Your task to perform on an android device: Go to Android settings Image 0: 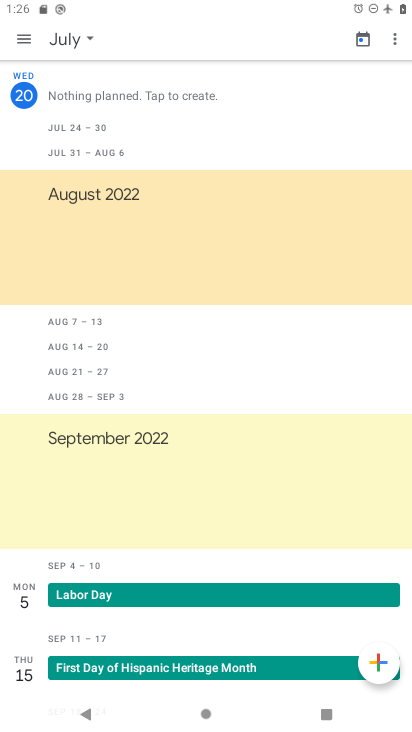
Step 0: press home button
Your task to perform on an android device: Go to Android settings Image 1: 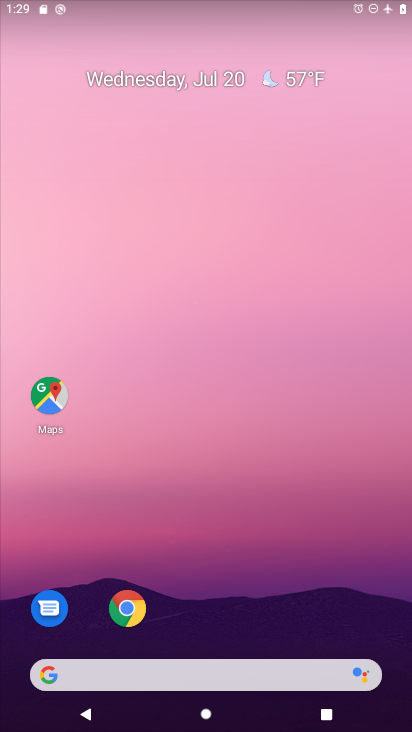
Step 1: drag from (217, 469) to (273, 203)
Your task to perform on an android device: Go to Android settings Image 2: 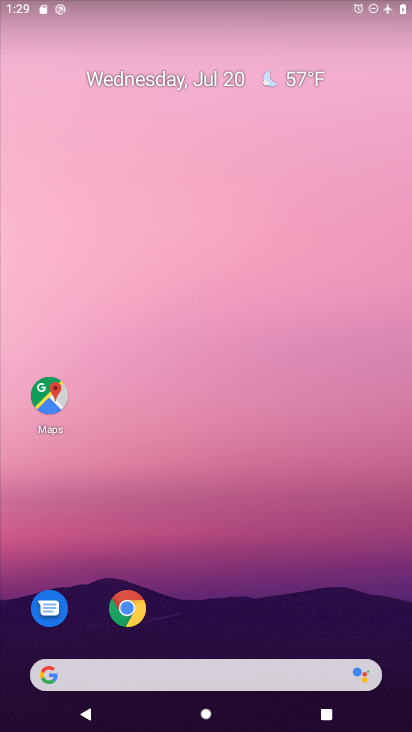
Step 2: drag from (138, 656) to (265, 52)
Your task to perform on an android device: Go to Android settings Image 3: 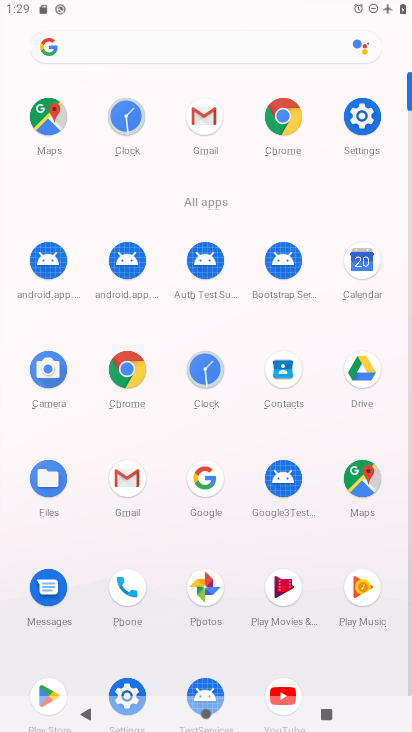
Step 3: click (364, 124)
Your task to perform on an android device: Go to Android settings Image 4: 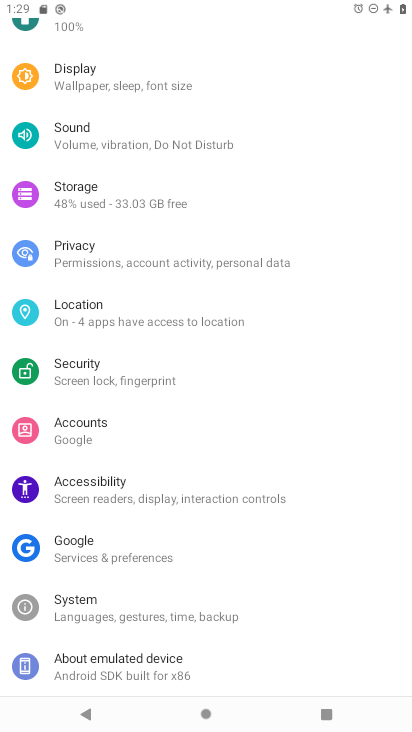
Step 4: drag from (188, 667) to (191, 163)
Your task to perform on an android device: Go to Android settings Image 5: 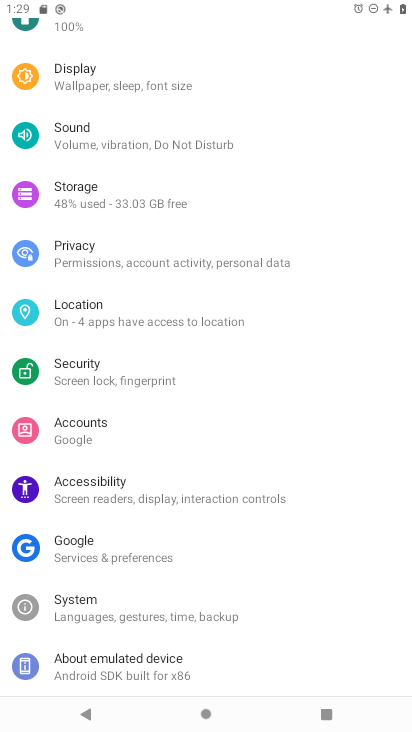
Step 5: click (164, 665)
Your task to perform on an android device: Go to Android settings Image 6: 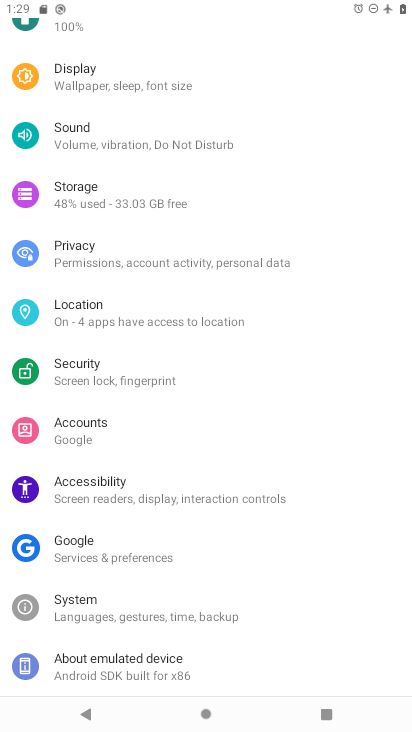
Step 6: drag from (286, 391) to (353, 5)
Your task to perform on an android device: Go to Android settings Image 7: 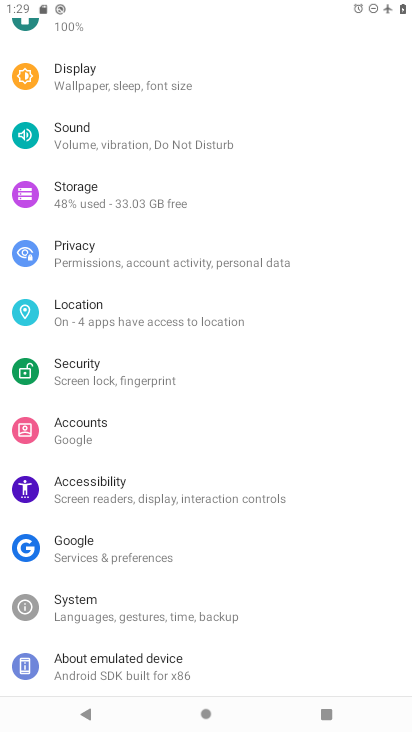
Step 7: click (194, 658)
Your task to perform on an android device: Go to Android settings Image 8: 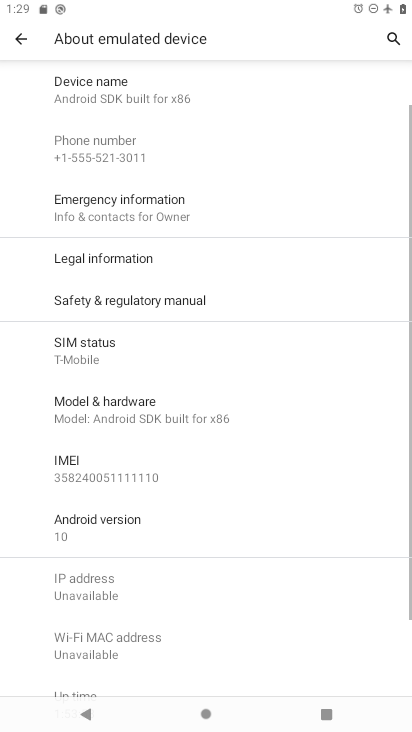
Step 8: task complete